Your task to perform on an android device: change the clock style Image 0: 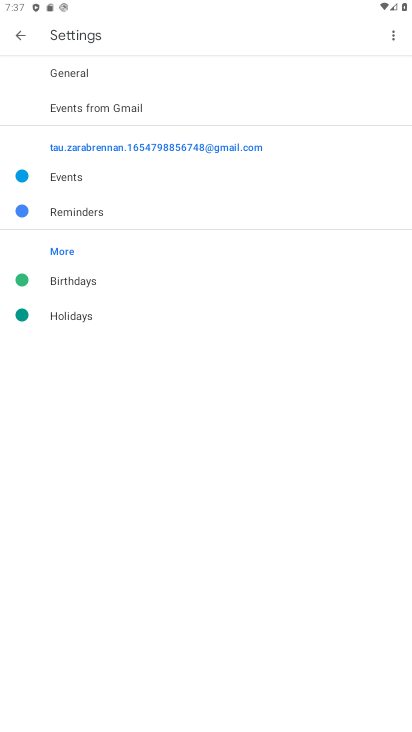
Step 0: press home button
Your task to perform on an android device: change the clock style Image 1: 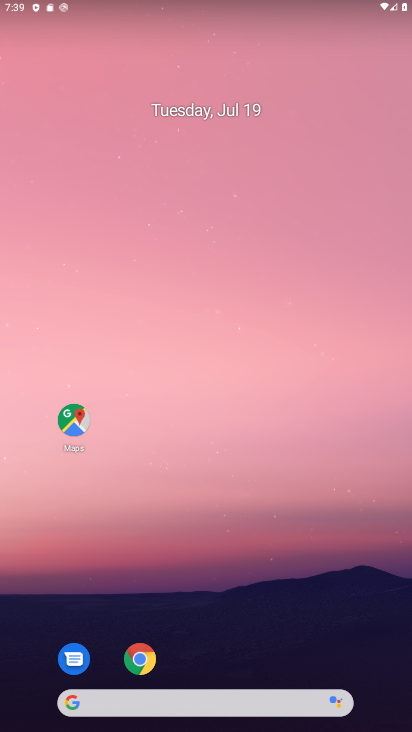
Step 1: drag from (367, 705) to (305, 13)
Your task to perform on an android device: change the clock style Image 2: 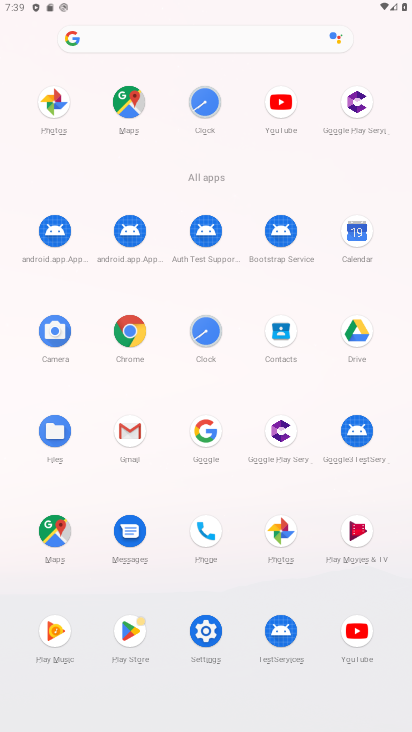
Step 2: click (203, 332)
Your task to perform on an android device: change the clock style Image 3: 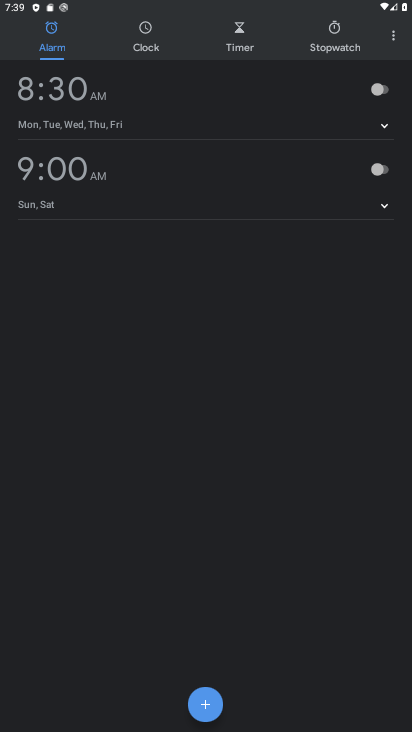
Step 3: click (389, 33)
Your task to perform on an android device: change the clock style Image 4: 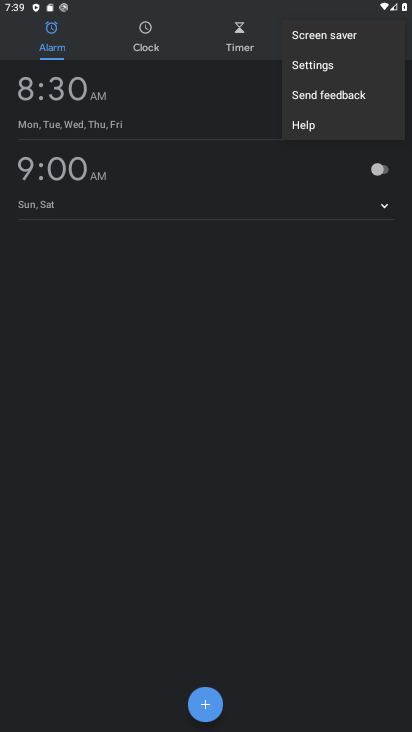
Step 4: click (321, 62)
Your task to perform on an android device: change the clock style Image 5: 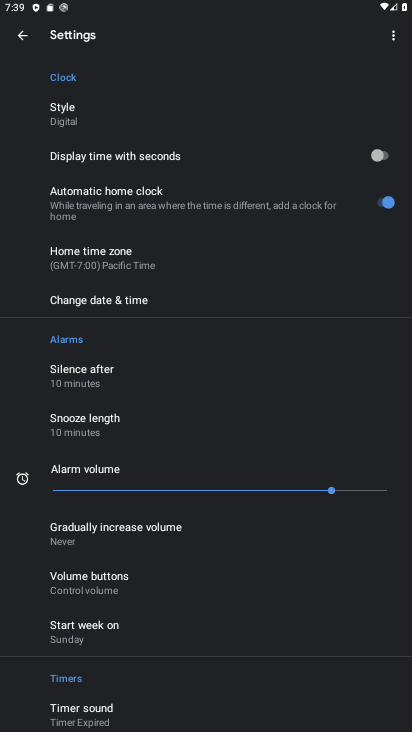
Step 5: click (67, 102)
Your task to perform on an android device: change the clock style Image 6: 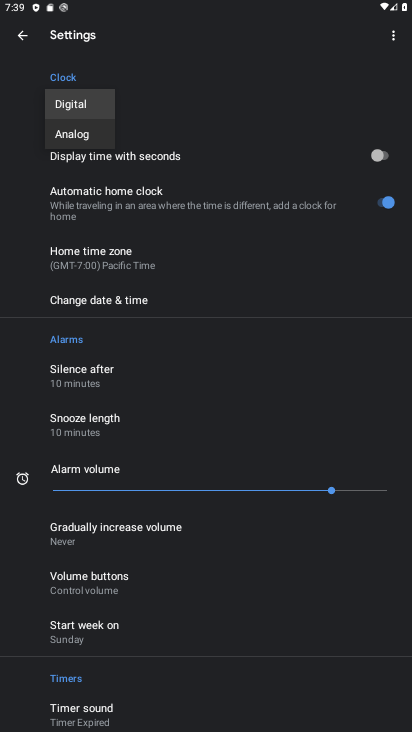
Step 6: click (63, 137)
Your task to perform on an android device: change the clock style Image 7: 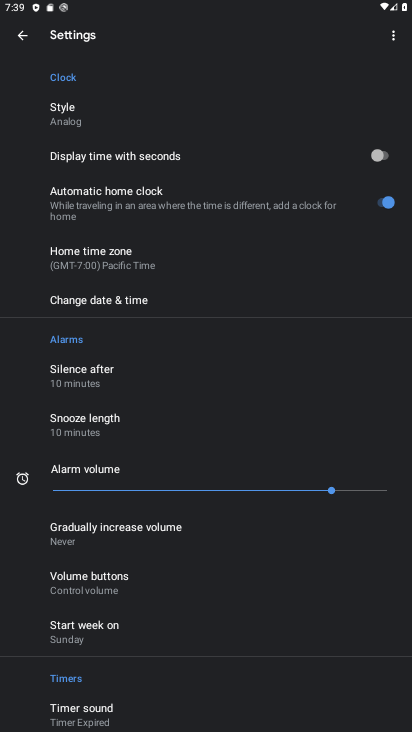
Step 7: task complete